Your task to perform on an android device: change keyboard looks Image 0: 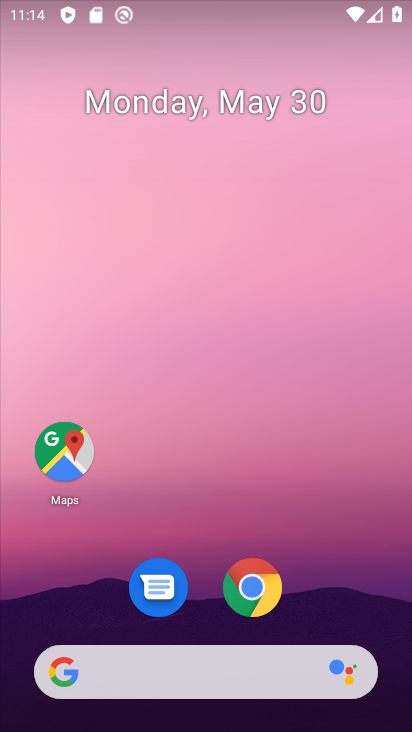
Step 0: drag from (182, 601) to (250, 714)
Your task to perform on an android device: change keyboard looks Image 1: 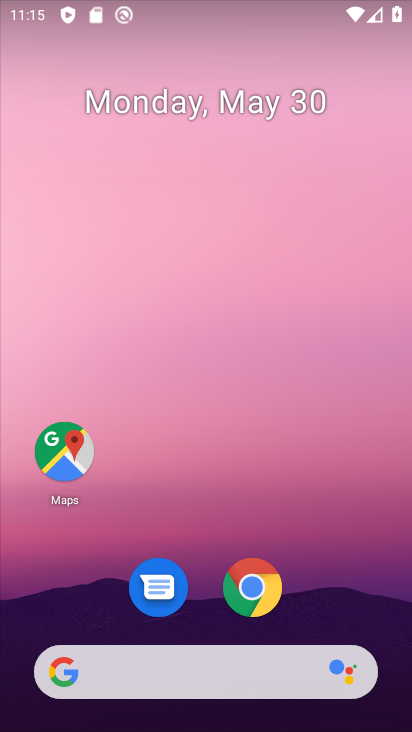
Step 1: drag from (199, 595) to (207, 0)
Your task to perform on an android device: change keyboard looks Image 2: 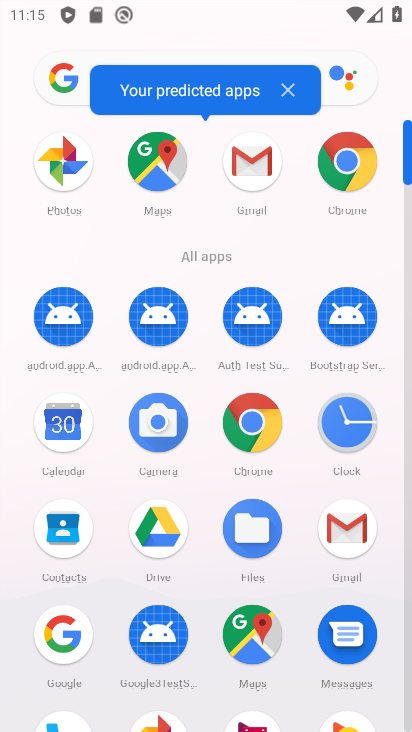
Step 2: drag from (288, 670) to (279, 158)
Your task to perform on an android device: change keyboard looks Image 3: 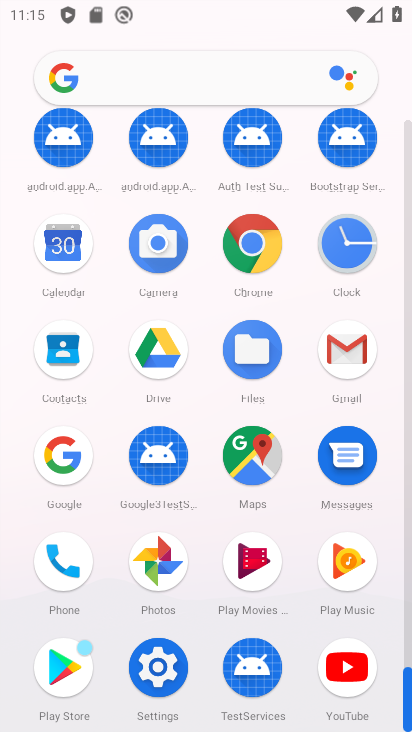
Step 3: click (153, 673)
Your task to perform on an android device: change keyboard looks Image 4: 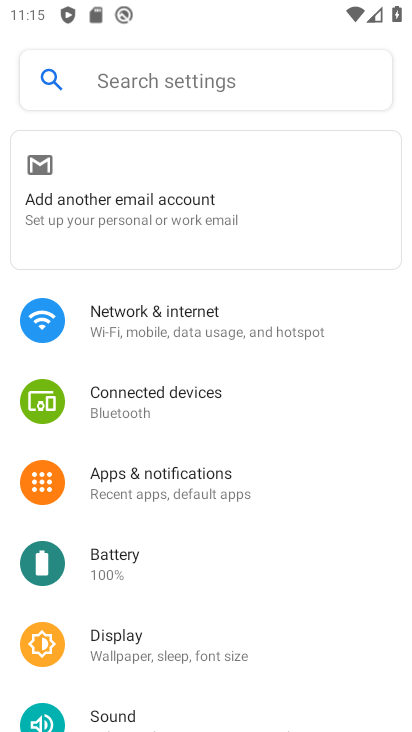
Step 4: drag from (185, 641) to (201, 3)
Your task to perform on an android device: change keyboard looks Image 5: 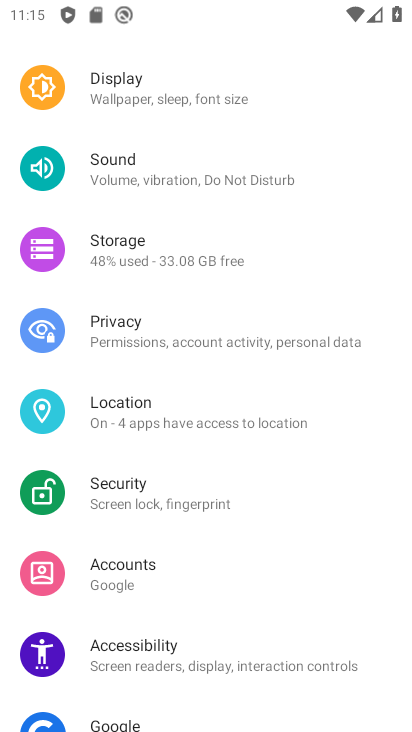
Step 5: drag from (154, 602) to (158, 27)
Your task to perform on an android device: change keyboard looks Image 6: 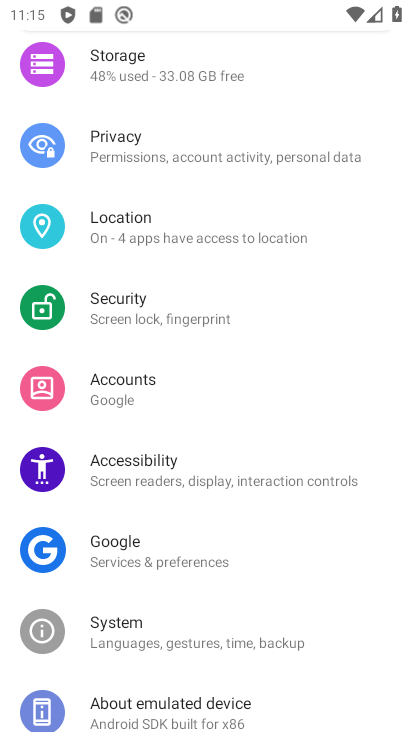
Step 6: click (123, 634)
Your task to perform on an android device: change keyboard looks Image 7: 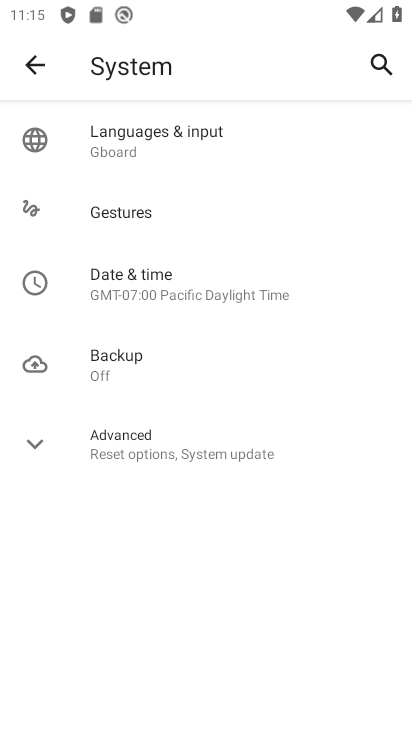
Step 7: click (153, 126)
Your task to perform on an android device: change keyboard looks Image 8: 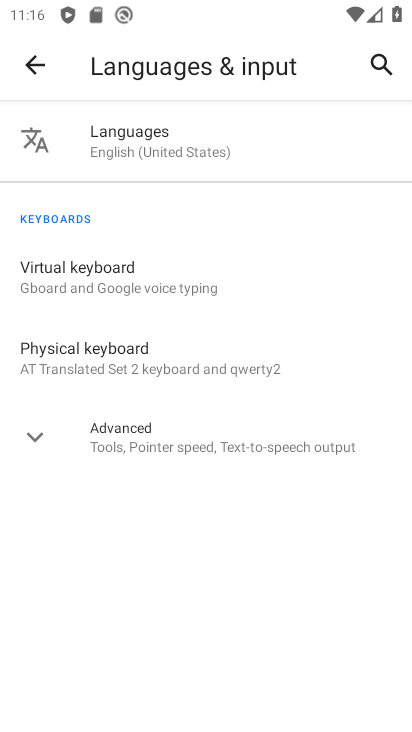
Step 8: click (142, 257)
Your task to perform on an android device: change keyboard looks Image 9: 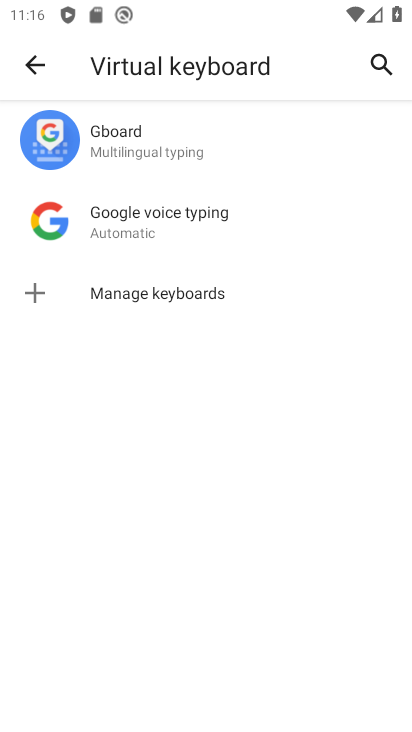
Step 9: click (111, 152)
Your task to perform on an android device: change keyboard looks Image 10: 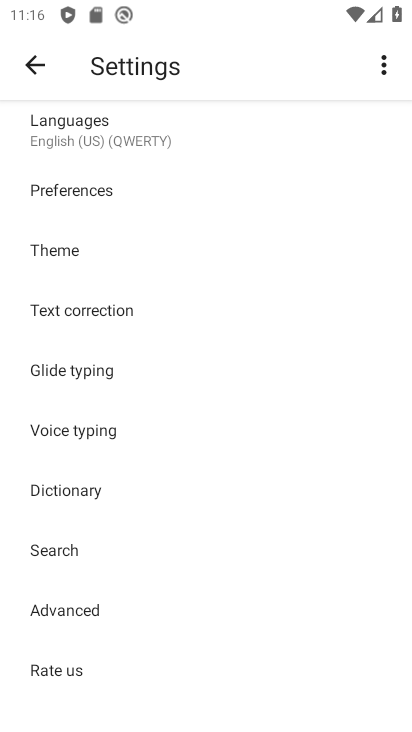
Step 10: click (106, 261)
Your task to perform on an android device: change keyboard looks Image 11: 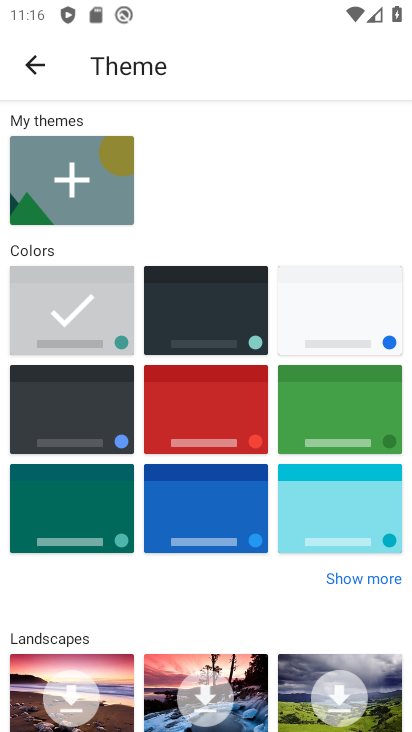
Step 11: click (182, 477)
Your task to perform on an android device: change keyboard looks Image 12: 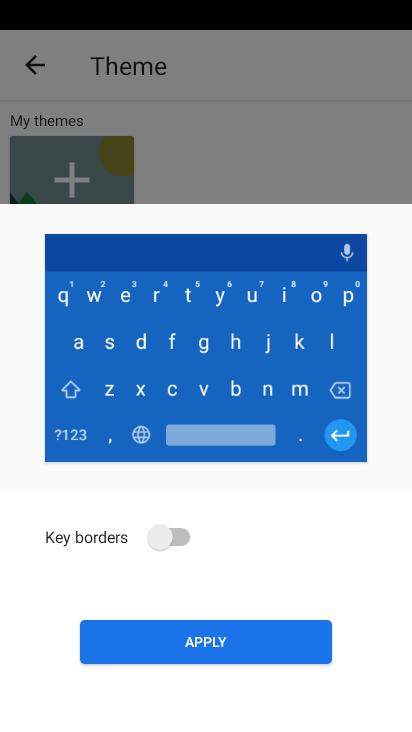
Step 12: click (194, 630)
Your task to perform on an android device: change keyboard looks Image 13: 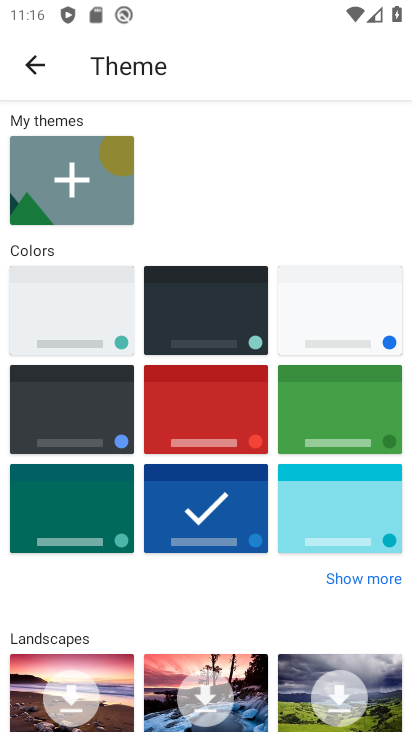
Step 13: task complete